Your task to perform on an android device: manage bookmarks in the chrome app Image 0: 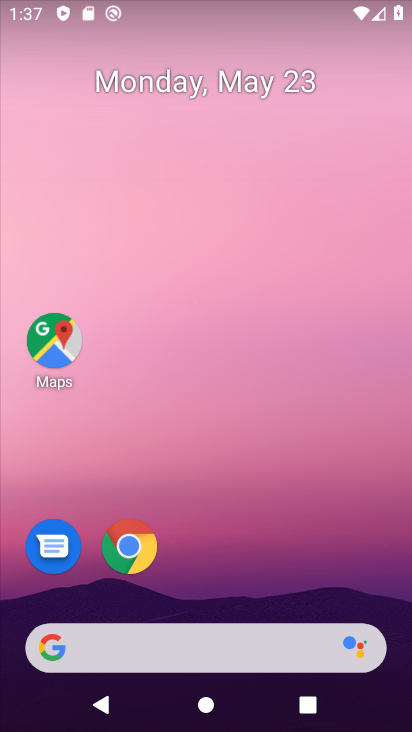
Step 0: click (135, 540)
Your task to perform on an android device: manage bookmarks in the chrome app Image 1: 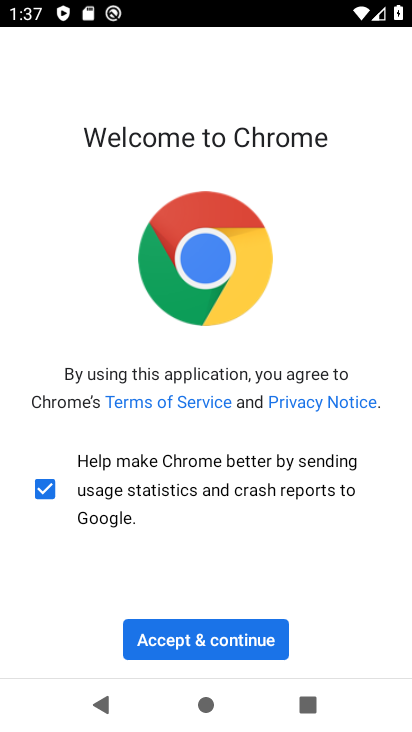
Step 1: click (197, 636)
Your task to perform on an android device: manage bookmarks in the chrome app Image 2: 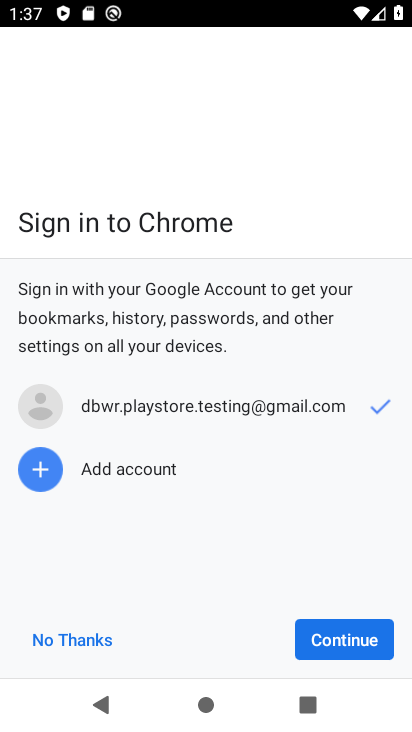
Step 2: click (359, 640)
Your task to perform on an android device: manage bookmarks in the chrome app Image 3: 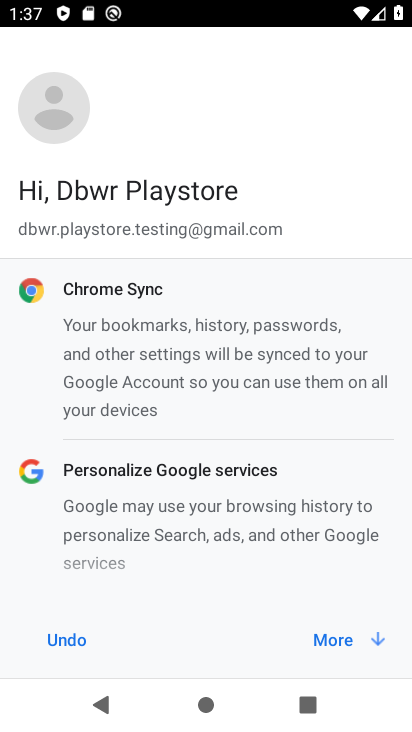
Step 3: click (340, 636)
Your task to perform on an android device: manage bookmarks in the chrome app Image 4: 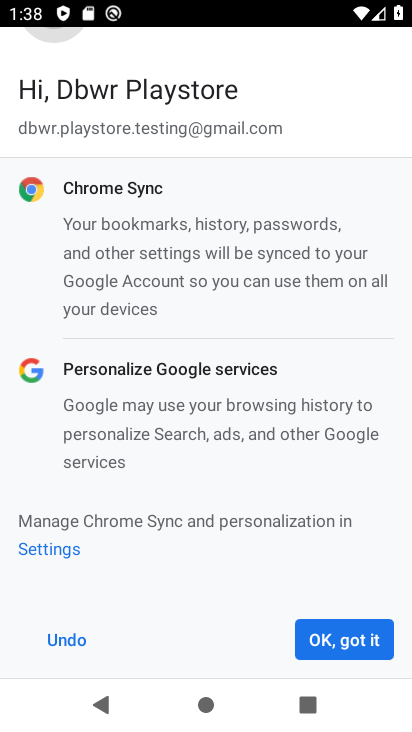
Step 4: click (340, 635)
Your task to perform on an android device: manage bookmarks in the chrome app Image 5: 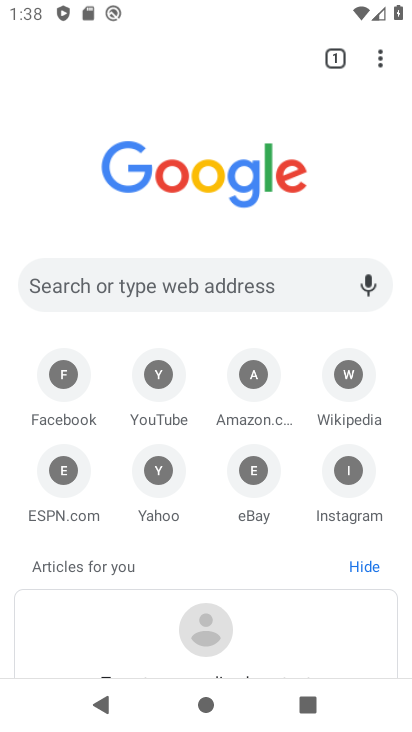
Step 5: task complete